Your task to perform on an android device: Check the weather Image 0: 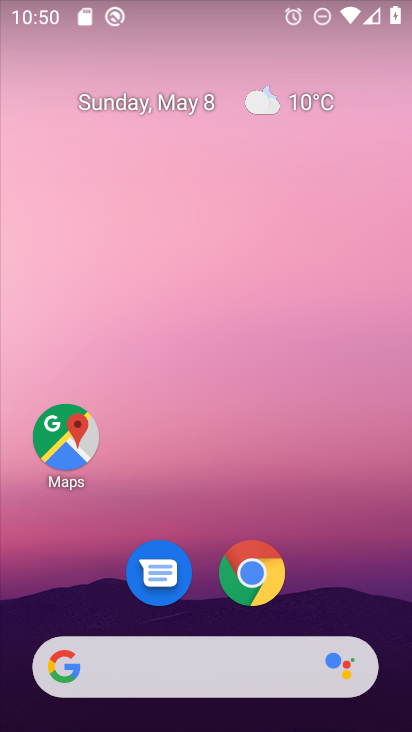
Step 0: click (267, 562)
Your task to perform on an android device: Check the weather Image 1: 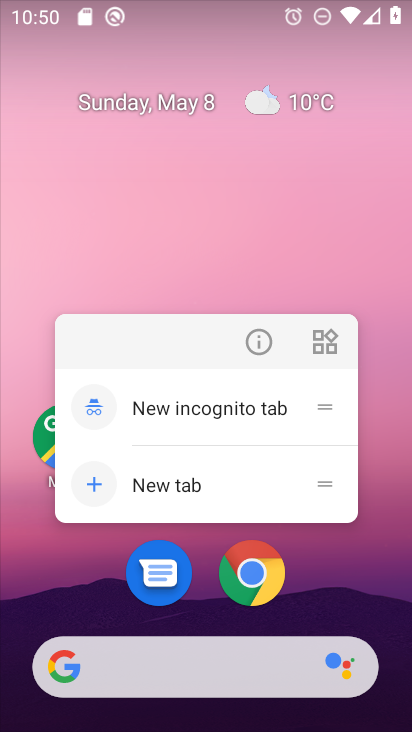
Step 1: click (257, 575)
Your task to perform on an android device: Check the weather Image 2: 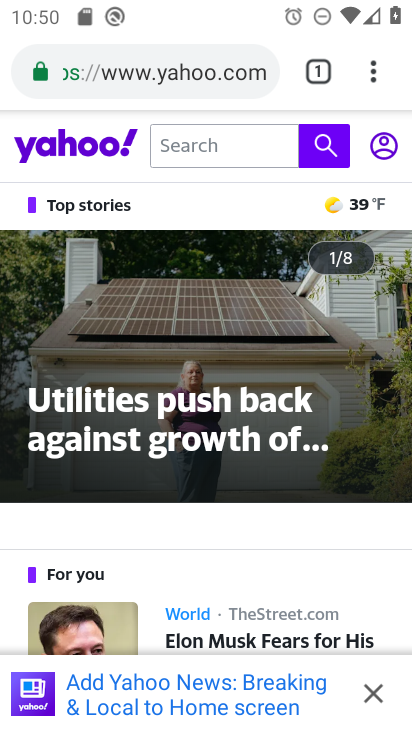
Step 2: click (155, 72)
Your task to perform on an android device: Check the weather Image 3: 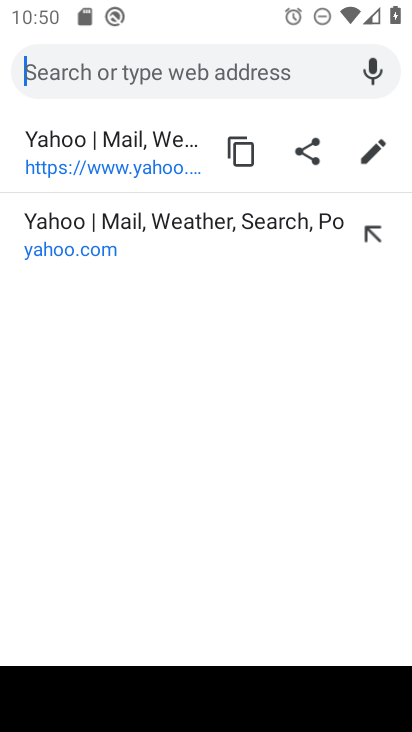
Step 3: type " weather"
Your task to perform on an android device: Check the weather Image 4: 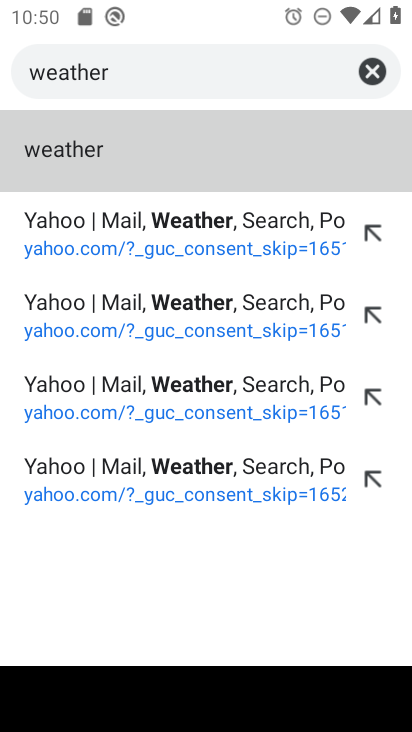
Step 4: click (281, 159)
Your task to perform on an android device: Check the weather Image 5: 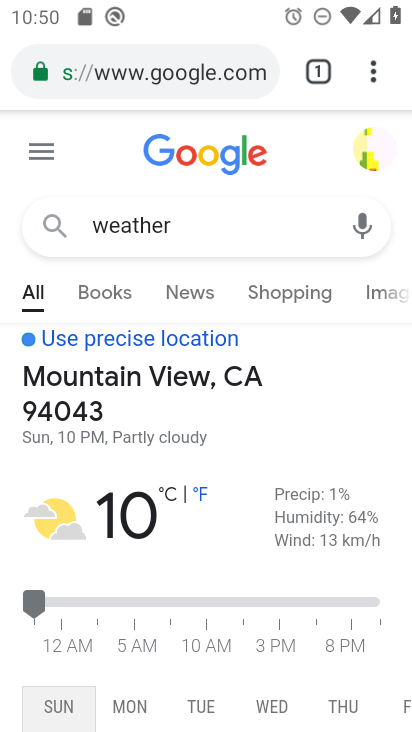
Step 5: task complete